Your task to perform on an android device: Go to location settings Image 0: 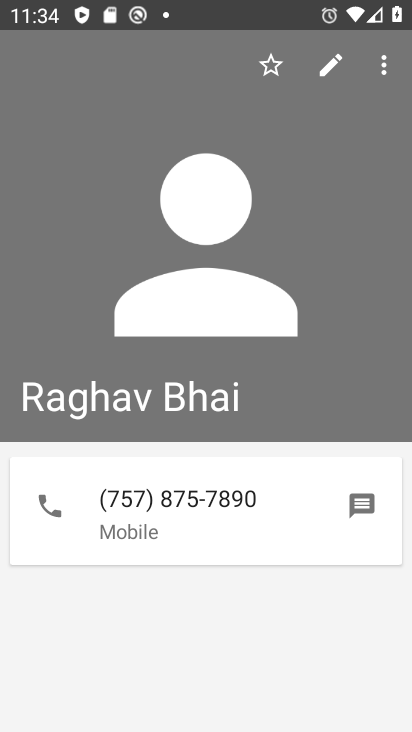
Step 0: press home button
Your task to perform on an android device: Go to location settings Image 1: 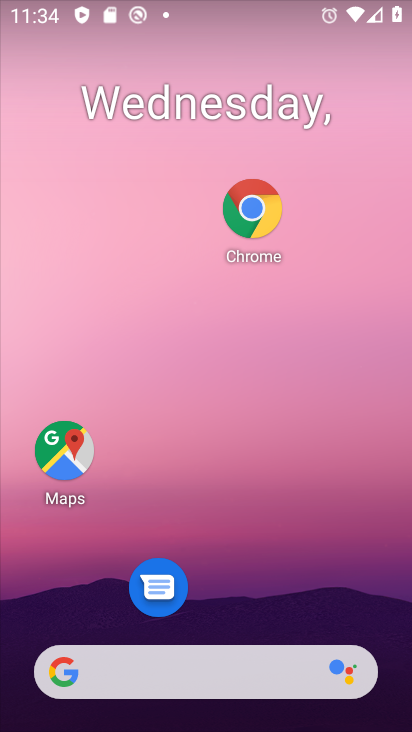
Step 1: drag from (210, 597) to (209, 15)
Your task to perform on an android device: Go to location settings Image 2: 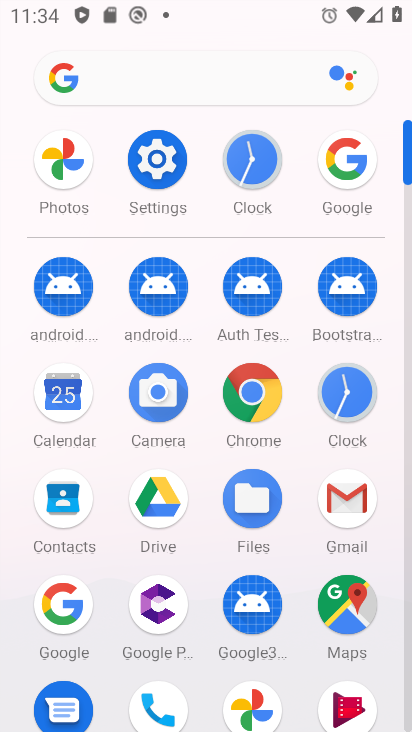
Step 2: drag from (194, 682) to (220, 236)
Your task to perform on an android device: Go to location settings Image 3: 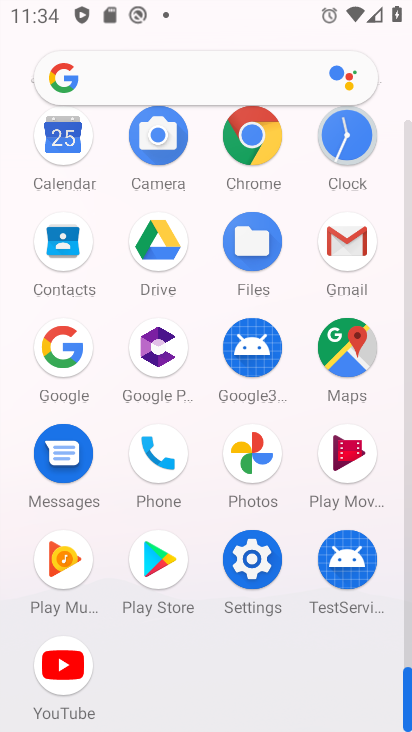
Step 3: click (255, 561)
Your task to perform on an android device: Go to location settings Image 4: 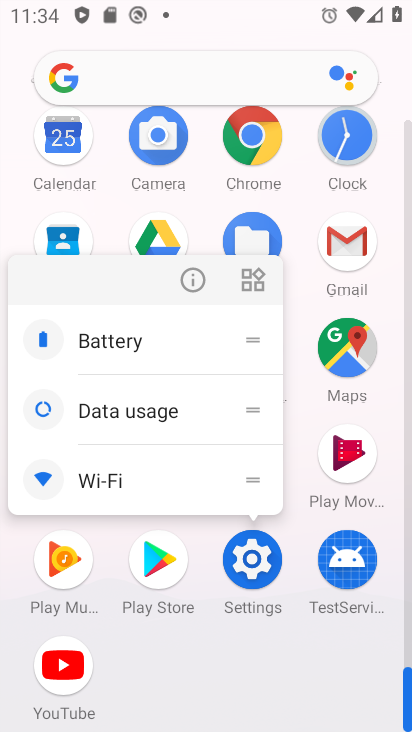
Step 4: click (254, 562)
Your task to perform on an android device: Go to location settings Image 5: 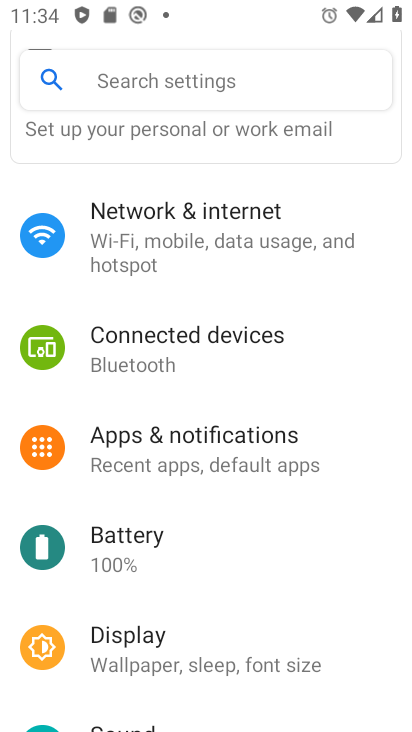
Step 5: drag from (184, 639) to (202, 234)
Your task to perform on an android device: Go to location settings Image 6: 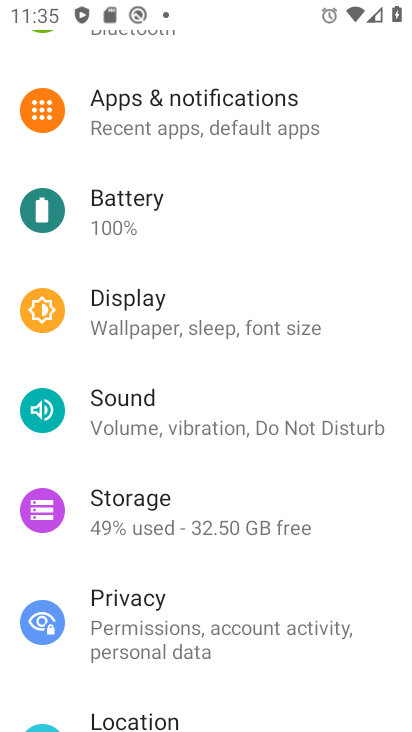
Step 6: drag from (163, 682) to (262, 384)
Your task to perform on an android device: Go to location settings Image 7: 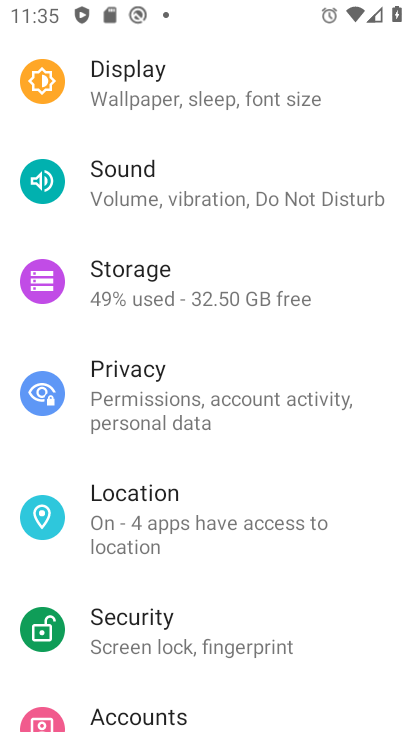
Step 7: click (138, 528)
Your task to perform on an android device: Go to location settings Image 8: 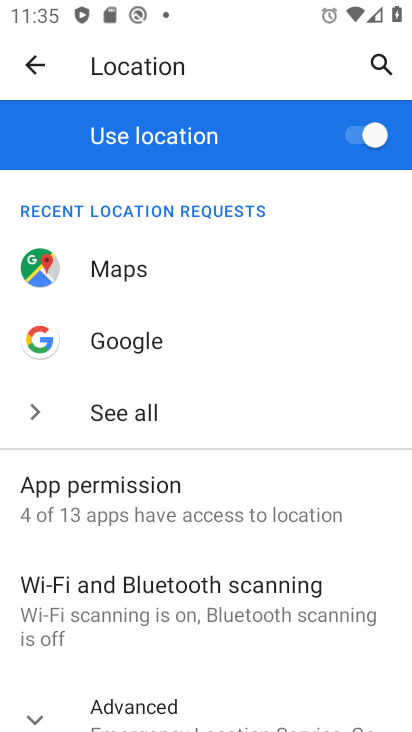
Step 8: drag from (184, 647) to (271, 302)
Your task to perform on an android device: Go to location settings Image 9: 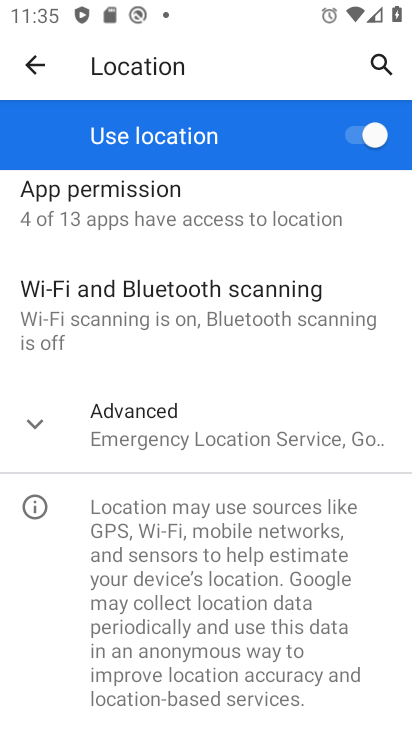
Step 9: click (344, 147)
Your task to perform on an android device: Go to location settings Image 10: 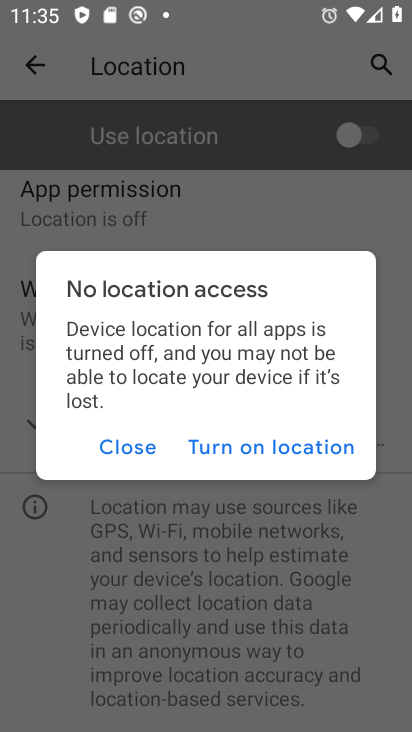
Step 10: task complete